Your task to perform on an android device: turn off wifi Image 0: 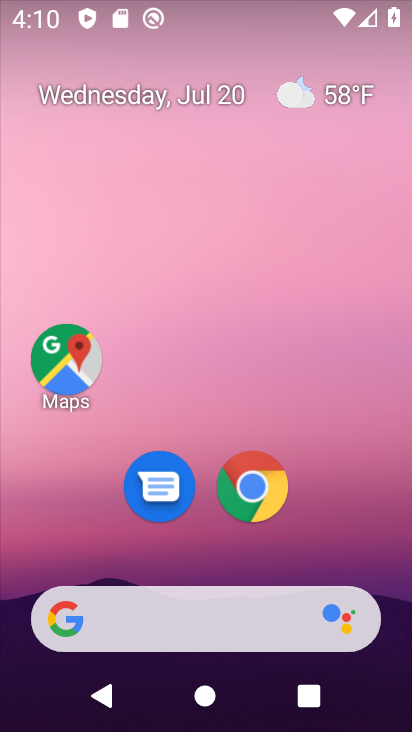
Step 0: drag from (132, 8) to (167, 608)
Your task to perform on an android device: turn off wifi Image 1: 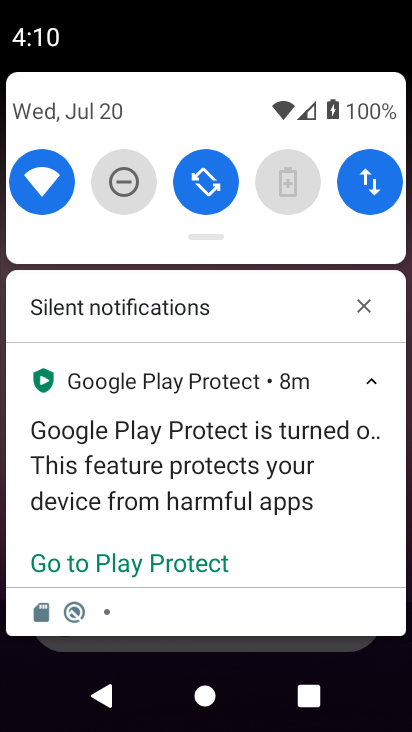
Step 1: click (28, 178)
Your task to perform on an android device: turn off wifi Image 2: 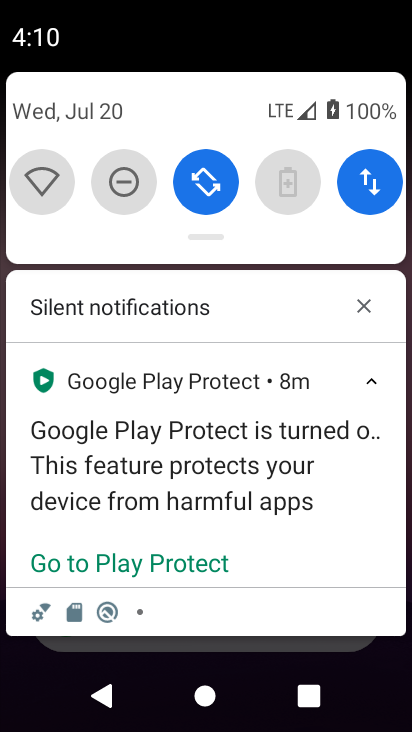
Step 2: task complete